Your task to perform on an android device: Is it going to rain this weekend? Image 0: 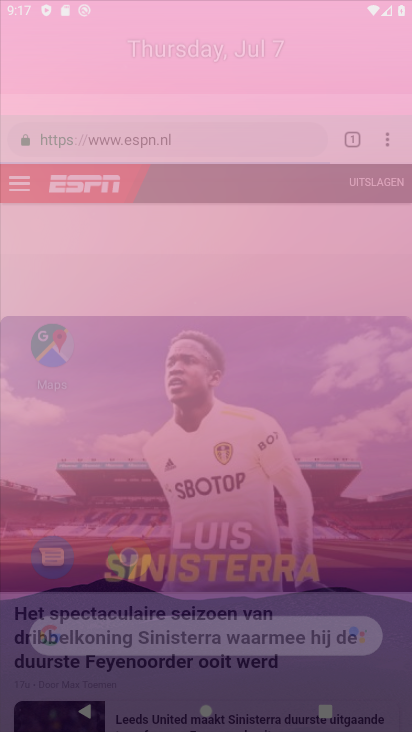
Step 0: click (220, 265)
Your task to perform on an android device: Is it going to rain this weekend? Image 1: 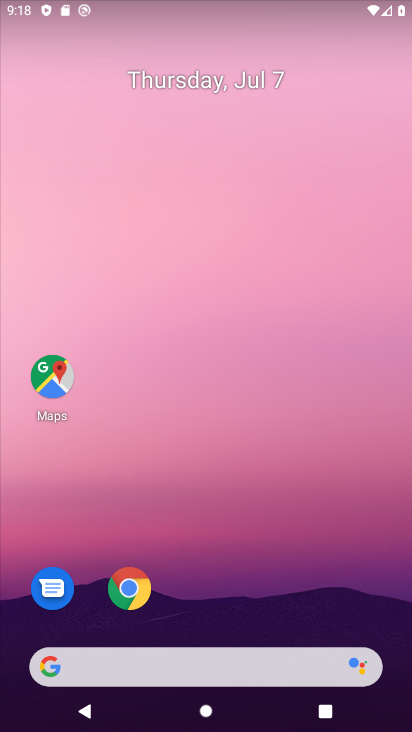
Step 1: drag from (245, 622) to (104, 165)
Your task to perform on an android device: Is it going to rain this weekend? Image 2: 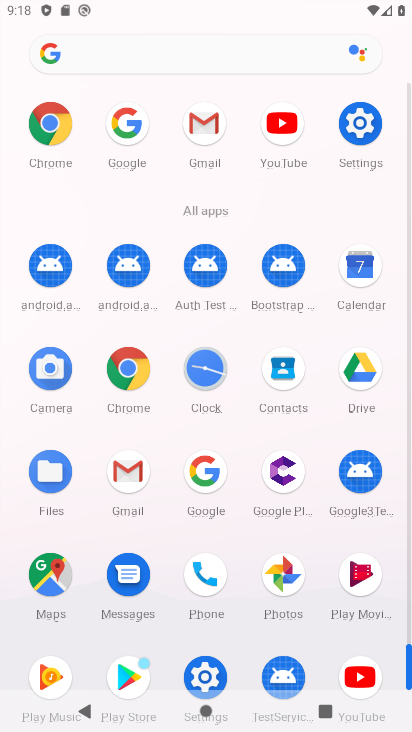
Step 2: press back button
Your task to perform on an android device: Is it going to rain this weekend? Image 3: 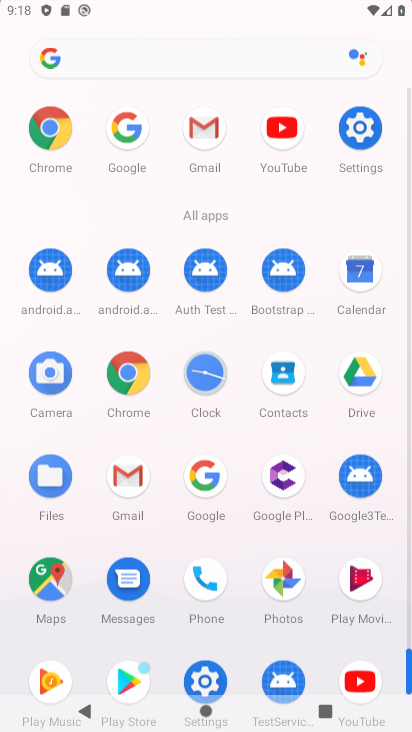
Step 3: press back button
Your task to perform on an android device: Is it going to rain this weekend? Image 4: 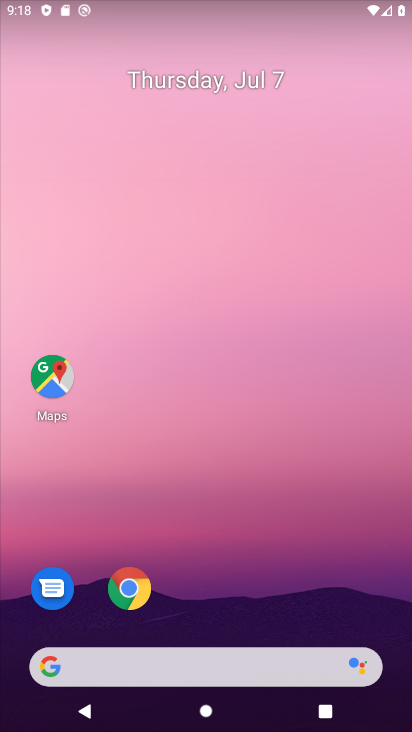
Step 4: drag from (11, 72) to (396, 389)
Your task to perform on an android device: Is it going to rain this weekend? Image 5: 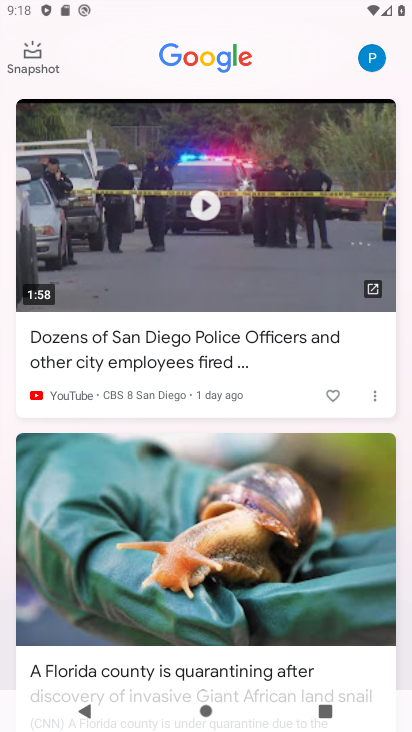
Step 5: drag from (107, 115) to (178, 537)
Your task to perform on an android device: Is it going to rain this weekend? Image 6: 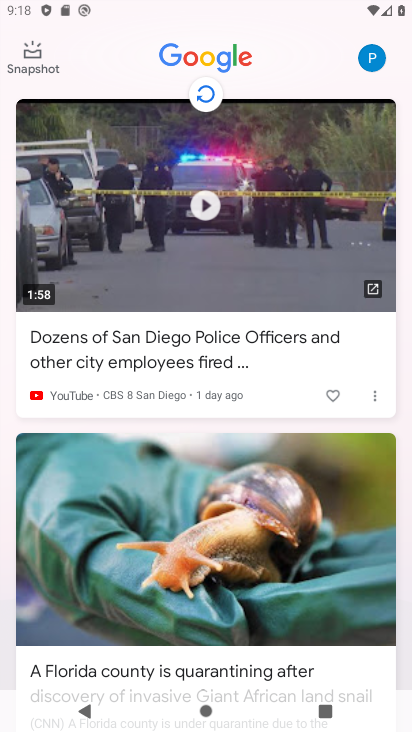
Step 6: drag from (127, 225) to (172, 370)
Your task to perform on an android device: Is it going to rain this weekend? Image 7: 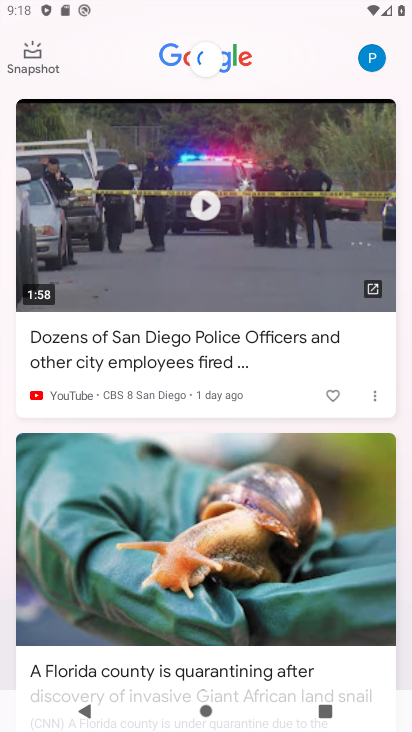
Step 7: drag from (163, 72) to (172, 285)
Your task to perform on an android device: Is it going to rain this weekend? Image 8: 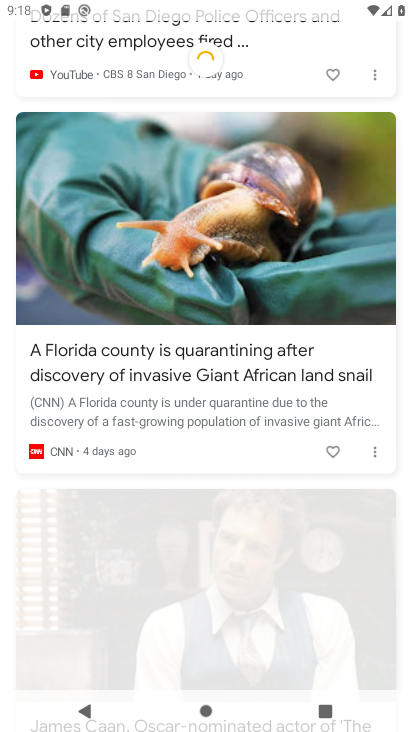
Step 8: drag from (185, 6) to (210, 543)
Your task to perform on an android device: Is it going to rain this weekend? Image 9: 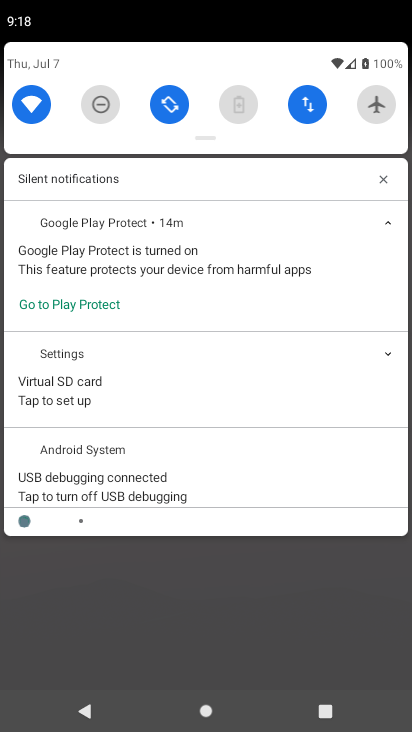
Step 9: drag from (209, 92) to (153, 636)
Your task to perform on an android device: Is it going to rain this weekend? Image 10: 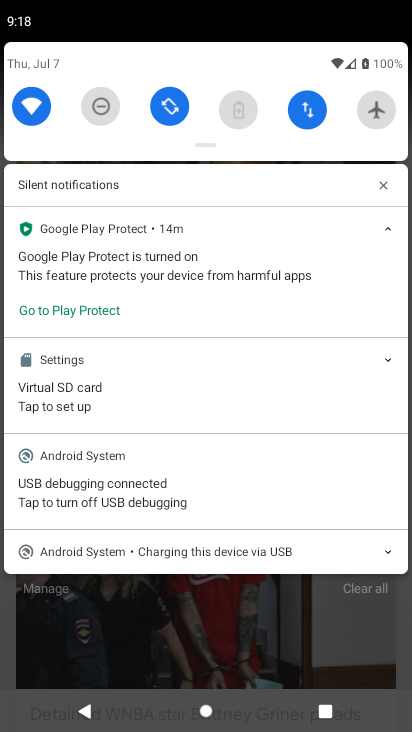
Step 10: drag from (149, 241) to (135, 620)
Your task to perform on an android device: Is it going to rain this weekend? Image 11: 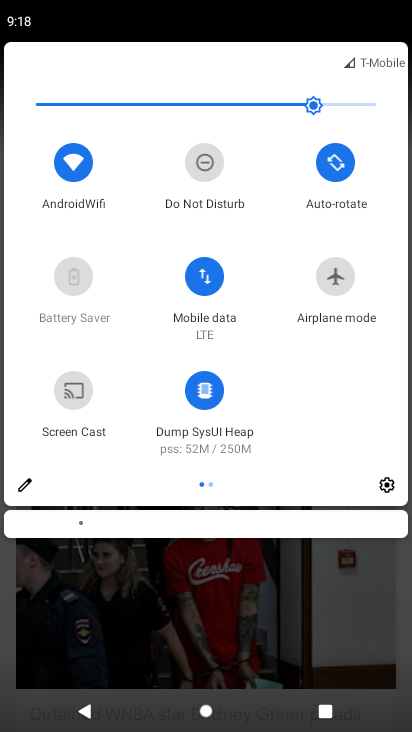
Step 11: drag from (183, 474) to (180, 90)
Your task to perform on an android device: Is it going to rain this weekend? Image 12: 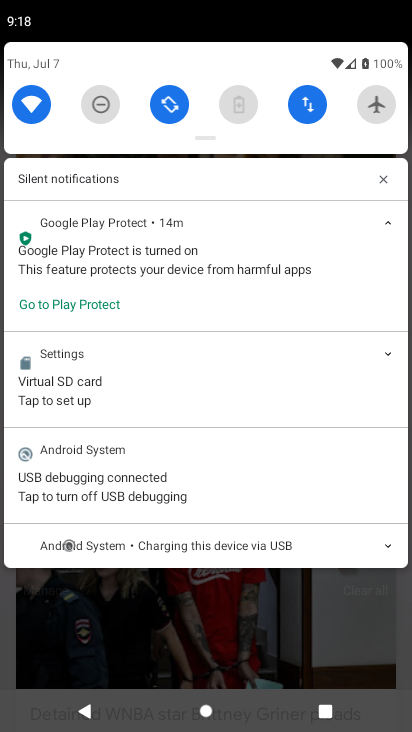
Step 12: drag from (221, 432) to (283, 42)
Your task to perform on an android device: Is it going to rain this weekend? Image 13: 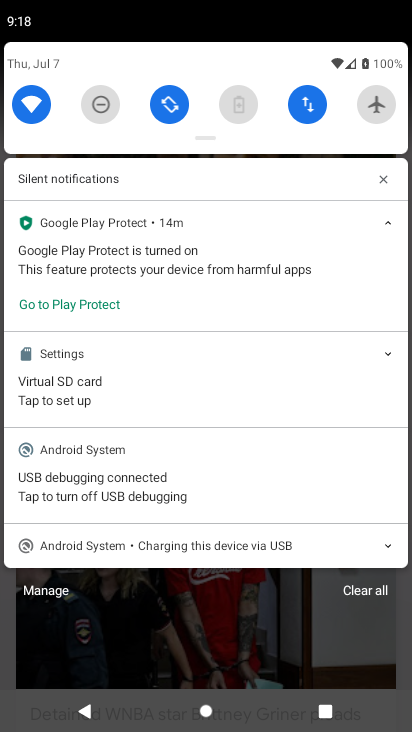
Step 13: drag from (220, 458) to (294, 219)
Your task to perform on an android device: Is it going to rain this weekend? Image 14: 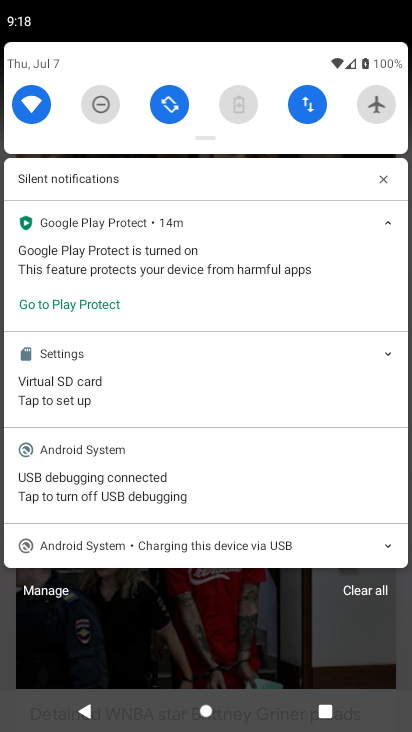
Step 14: press back button
Your task to perform on an android device: Is it going to rain this weekend? Image 15: 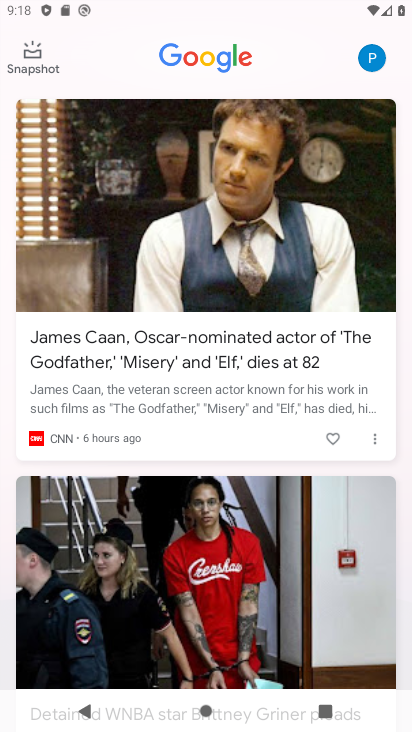
Step 15: press back button
Your task to perform on an android device: Is it going to rain this weekend? Image 16: 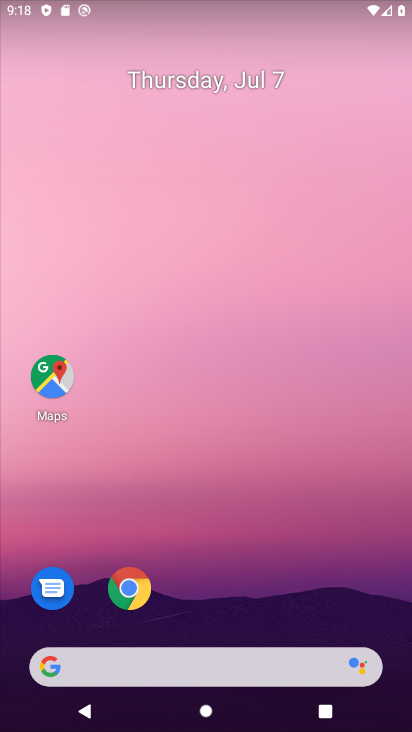
Step 16: press home button
Your task to perform on an android device: Is it going to rain this weekend? Image 17: 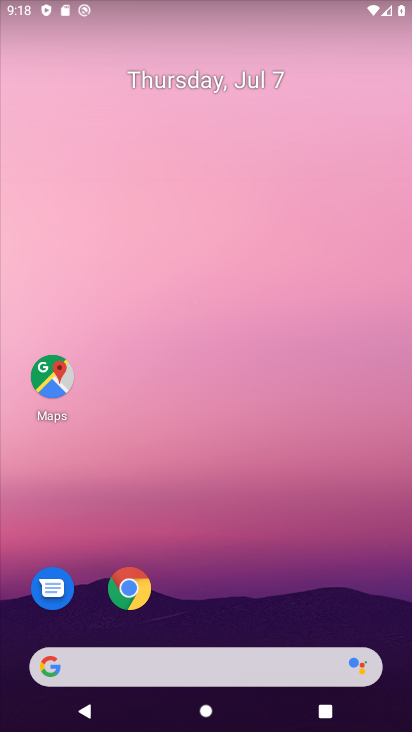
Step 17: click (207, 148)
Your task to perform on an android device: Is it going to rain this weekend? Image 18: 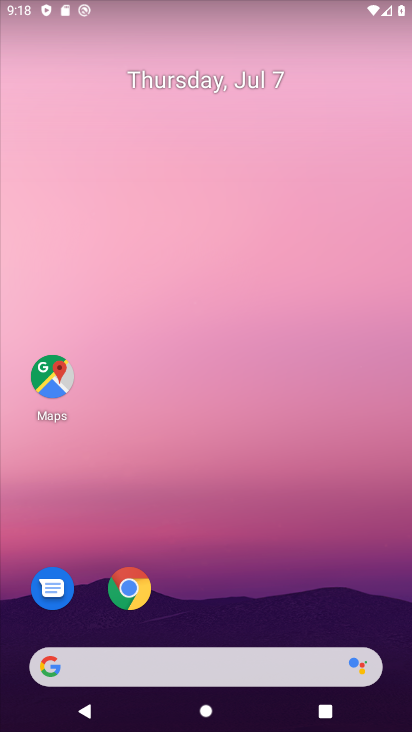
Step 18: click (116, 585)
Your task to perform on an android device: Is it going to rain this weekend? Image 19: 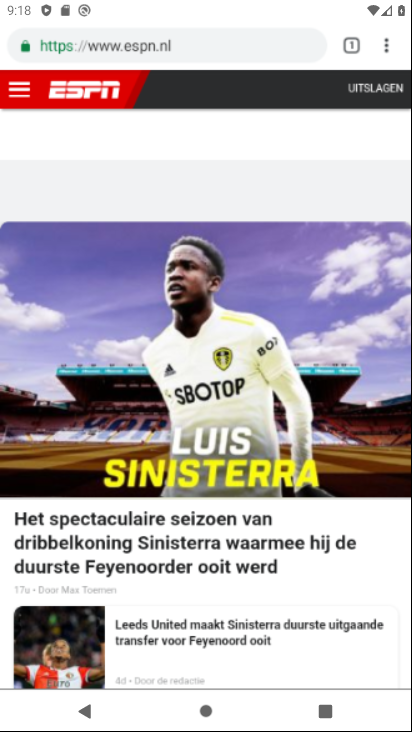
Step 19: click (120, 586)
Your task to perform on an android device: Is it going to rain this weekend? Image 20: 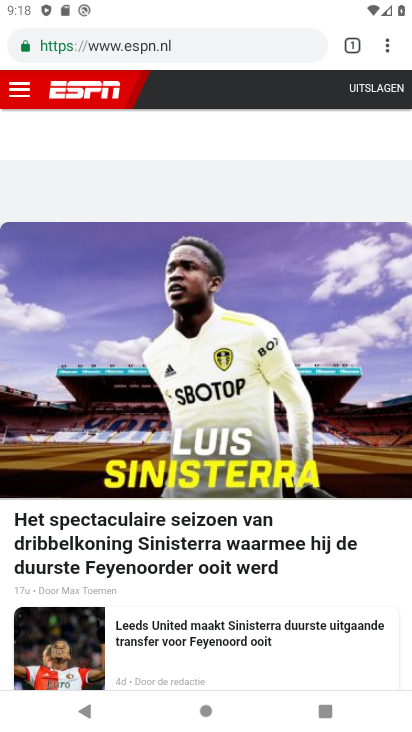
Step 20: click (187, 45)
Your task to perform on an android device: Is it going to rain this weekend? Image 21: 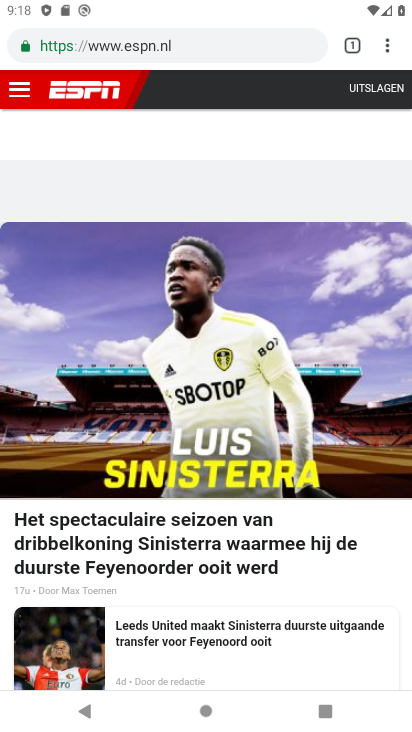
Step 21: click (188, 44)
Your task to perform on an android device: Is it going to rain this weekend? Image 22: 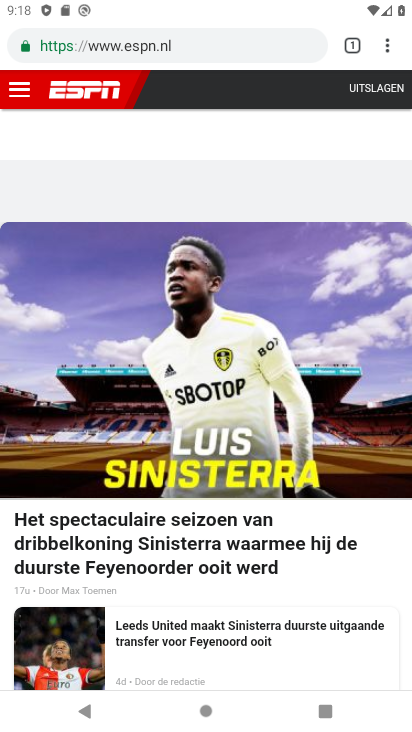
Step 22: click (387, 53)
Your task to perform on an android device: Is it going to rain this weekend? Image 23: 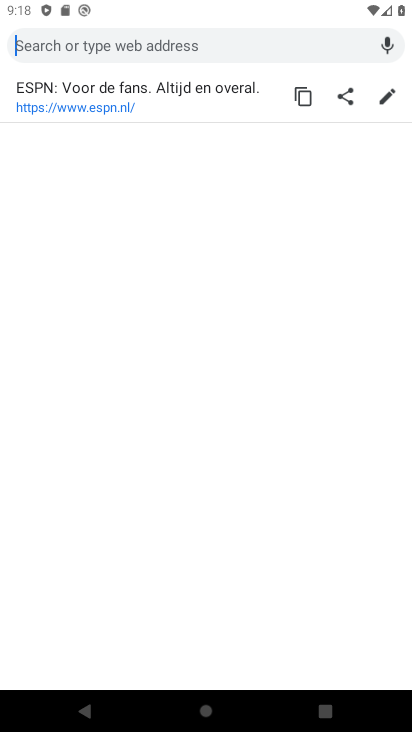
Step 23: click (375, 50)
Your task to perform on an android device: Is it going to rain this weekend? Image 24: 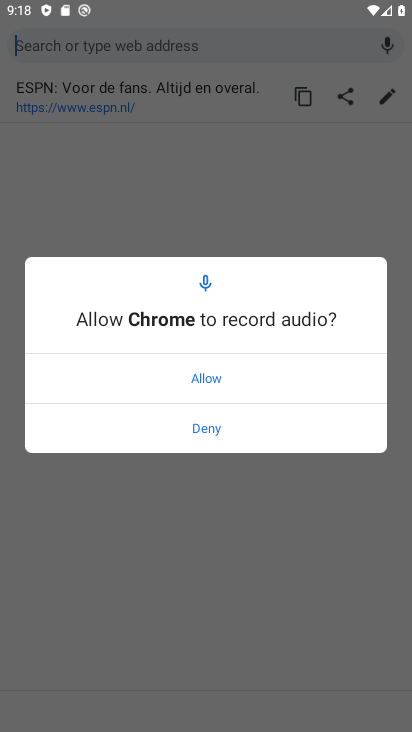
Step 24: type "is bit ngoing to rain this weekend"
Your task to perform on an android device: Is it going to rain this weekend? Image 25: 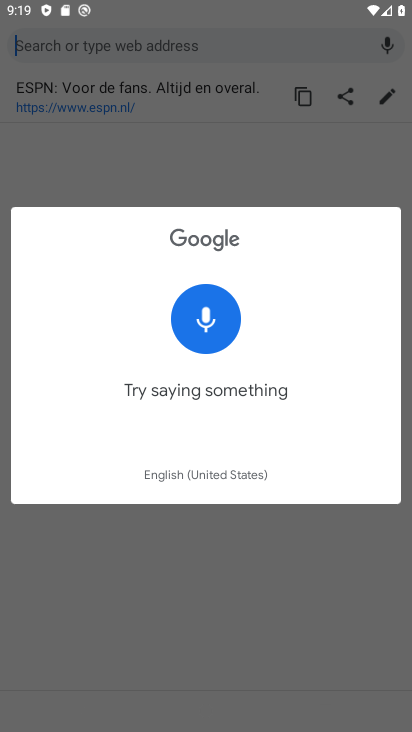
Step 25: click (183, 165)
Your task to perform on an android device: Is it going to rain this weekend? Image 26: 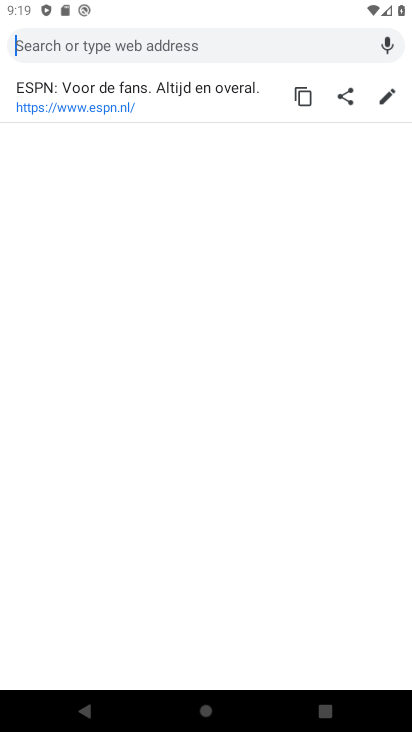
Step 26: task complete